Your task to perform on an android device: Open Reddit.com Image 0: 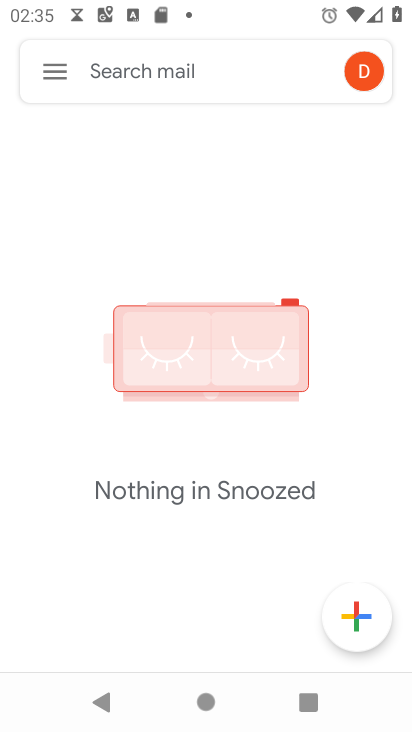
Step 0: press home button
Your task to perform on an android device: Open Reddit.com Image 1: 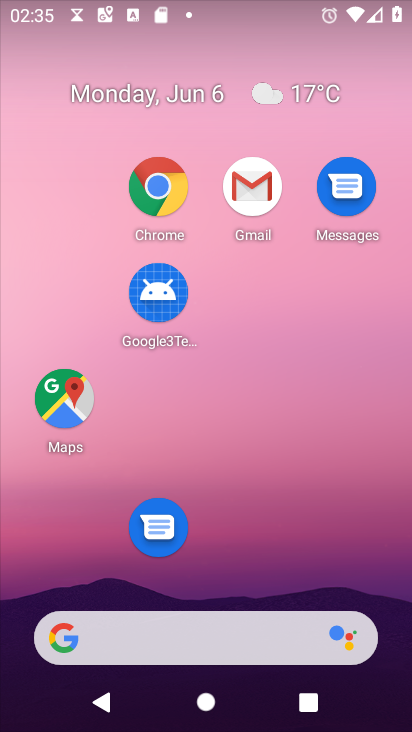
Step 1: click (210, 615)
Your task to perform on an android device: Open Reddit.com Image 2: 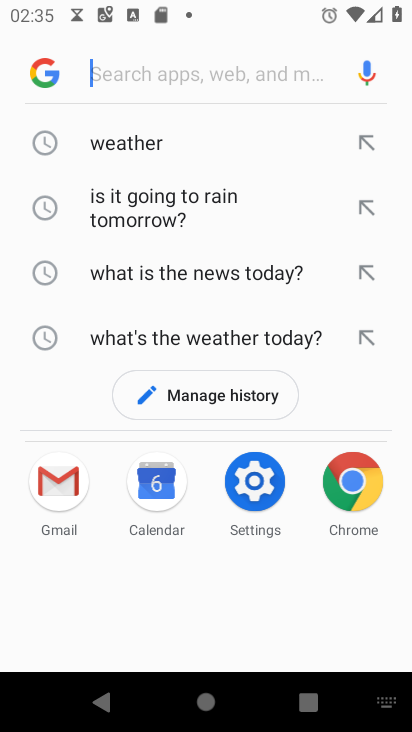
Step 2: type "Reddit.com"
Your task to perform on an android device: Open Reddit.com Image 3: 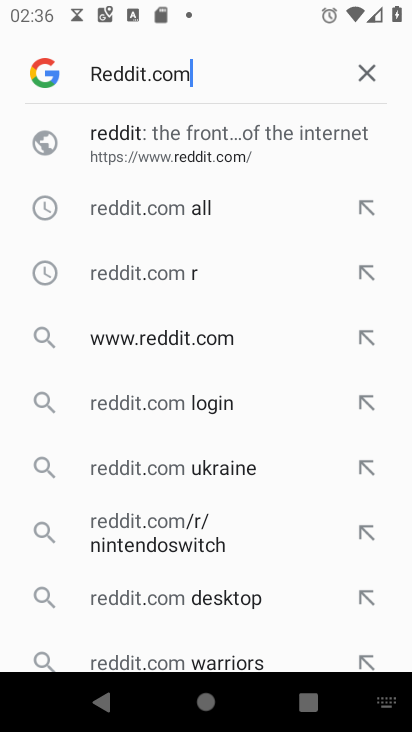
Step 3: click (216, 123)
Your task to perform on an android device: Open Reddit.com Image 4: 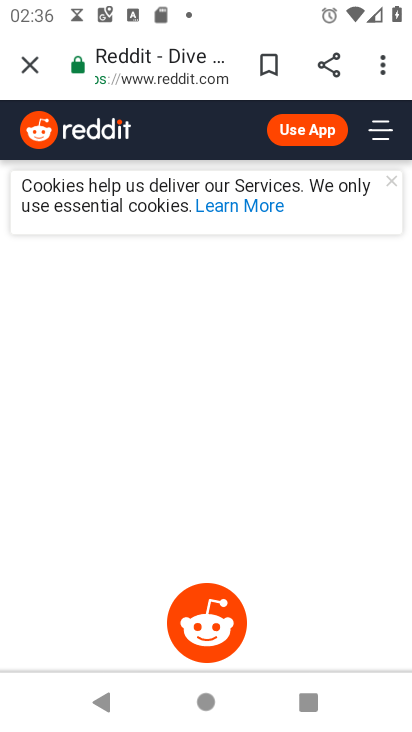
Step 4: task complete